Your task to perform on an android device: toggle translation in the chrome app Image 0: 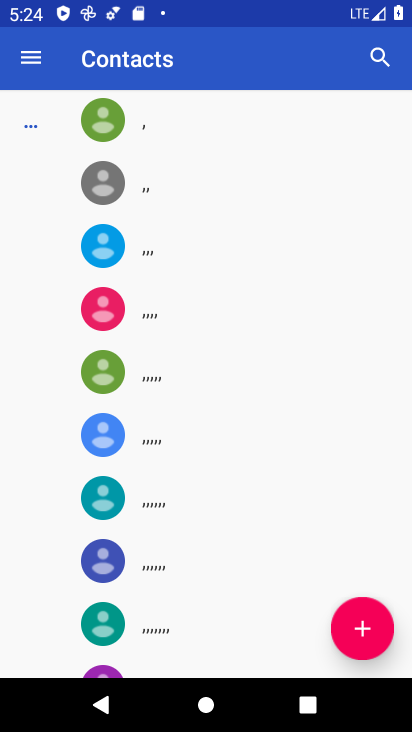
Step 0: press back button
Your task to perform on an android device: toggle translation in the chrome app Image 1: 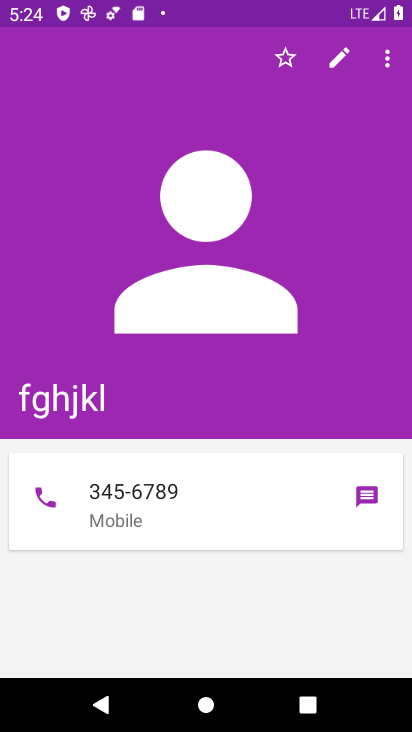
Step 1: press back button
Your task to perform on an android device: toggle translation in the chrome app Image 2: 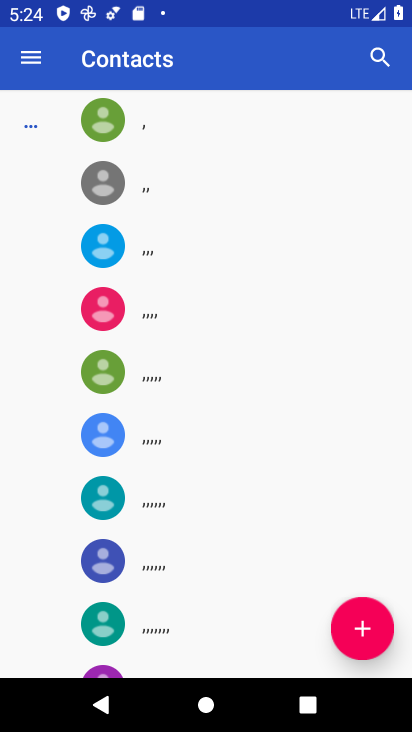
Step 2: press home button
Your task to perform on an android device: toggle translation in the chrome app Image 3: 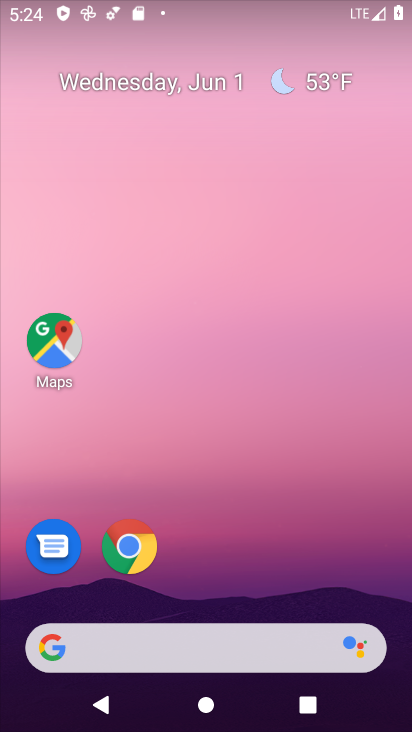
Step 3: drag from (220, 481) to (171, 28)
Your task to perform on an android device: toggle translation in the chrome app Image 4: 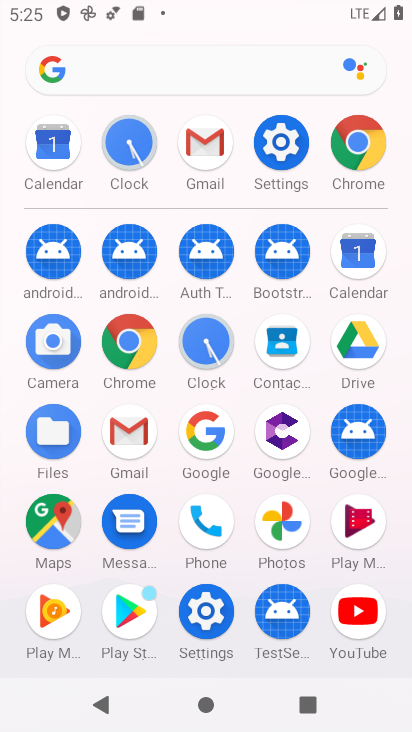
Step 4: click (353, 139)
Your task to perform on an android device: toggle translation in the chrome app Image 5: 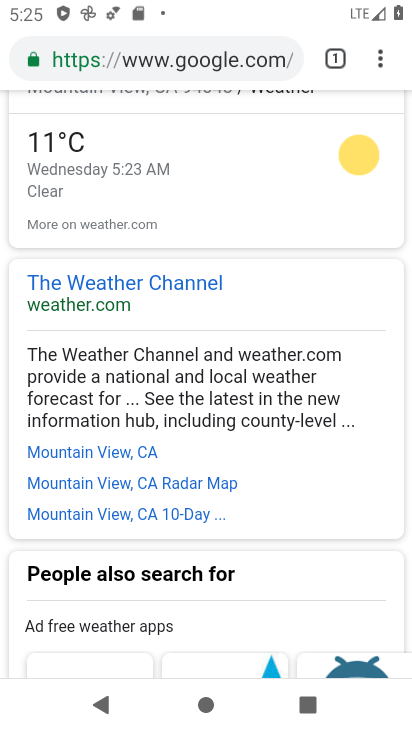
Step 5: drag from (379, 56) to (214, 558)
Your task to perform on an android device: toggle translation in the chrome app Image 6: 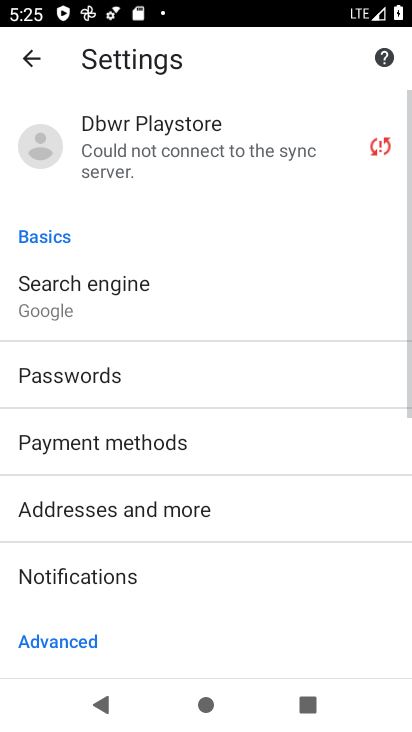
Step 6: drag from (196, 588) to (211, 224)
Your task to perform on an android device: toggle translation in the chrome app Image 7: 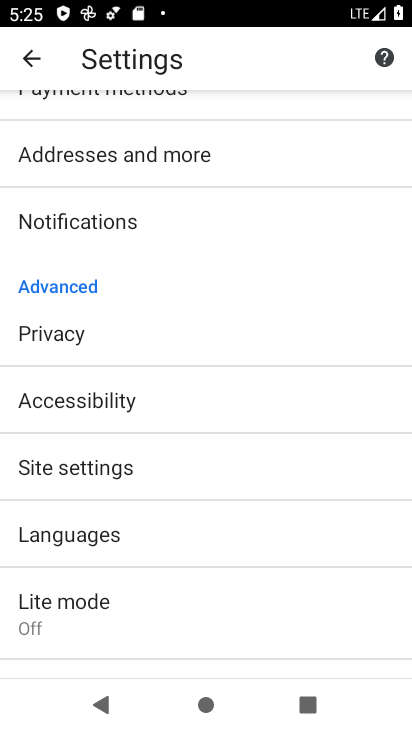
Step 7: drag from (137, 591) to (144, 317)
Your task to perform on an android device: toggle translation in the chrome app Image 8: 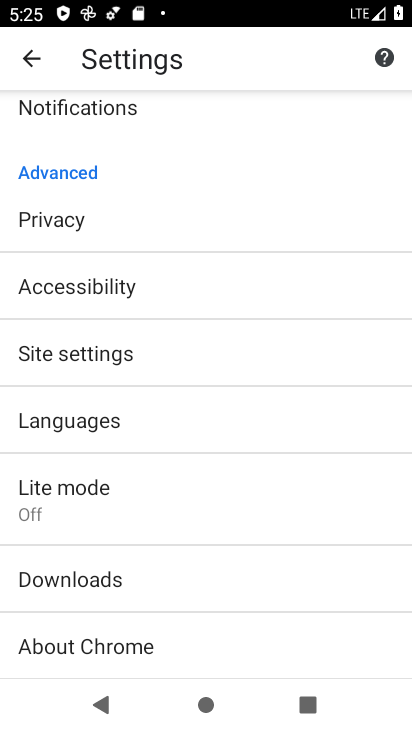
Step 8: click (141, 426)
Your task to perform on an android device: toggle translation in the chrome app Image 9: 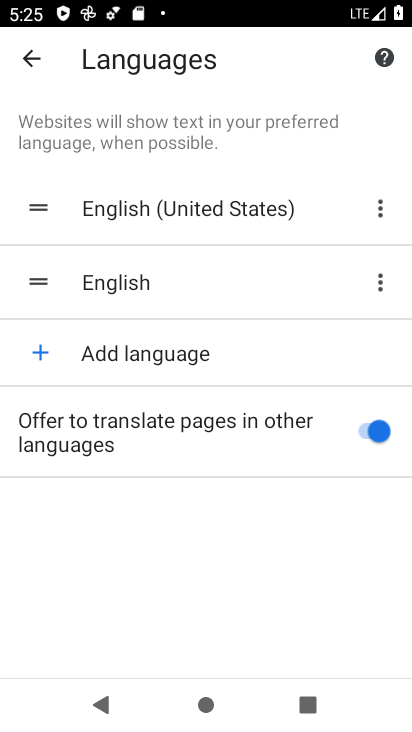
Step 9: click (384, 422)
Your task to perform on an android device: toggle translation in the chrome app Image 10: 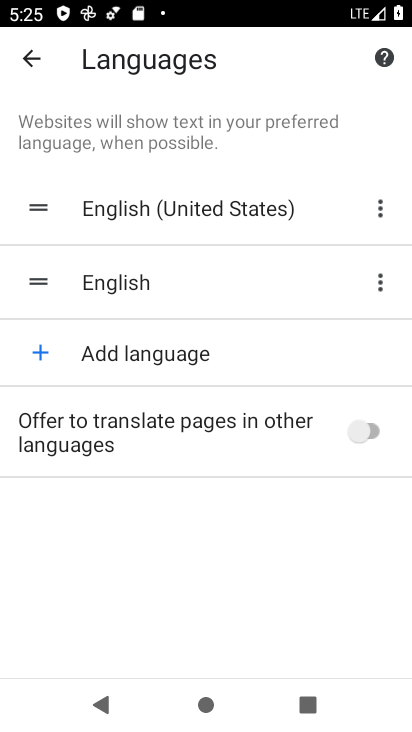
Step 10: task complete